Your task to perform on an android device: open sync settings in chrome Image 0: 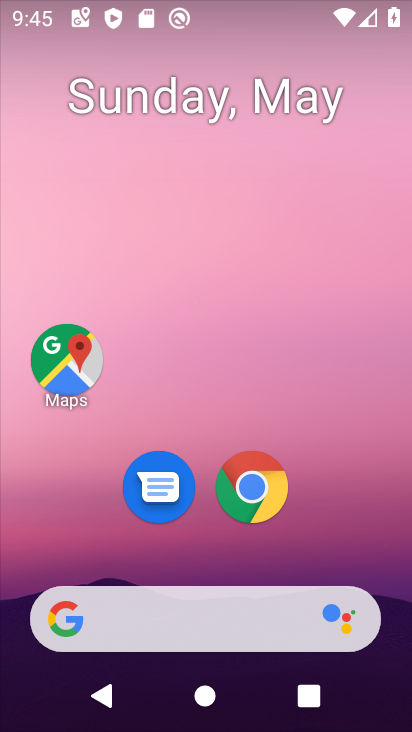
Step 0: drag from (387, 558) to (366, 196)
Your task to perform on an android device: open sync settings in chrome Image 1: 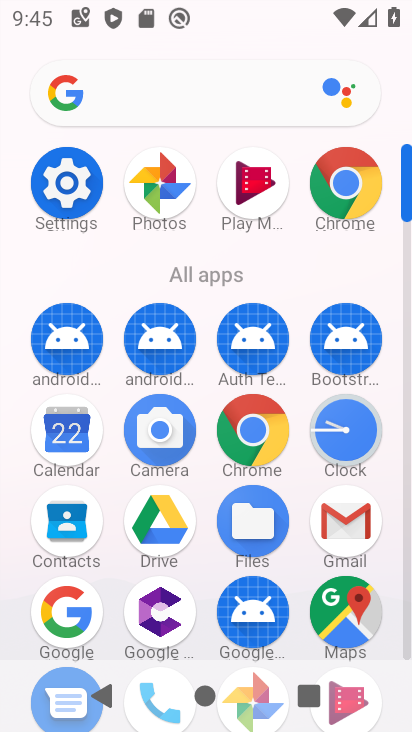
Step 1: click (271, 437)
Your task to perform on an android device: open sync settings in chrome Image 2: 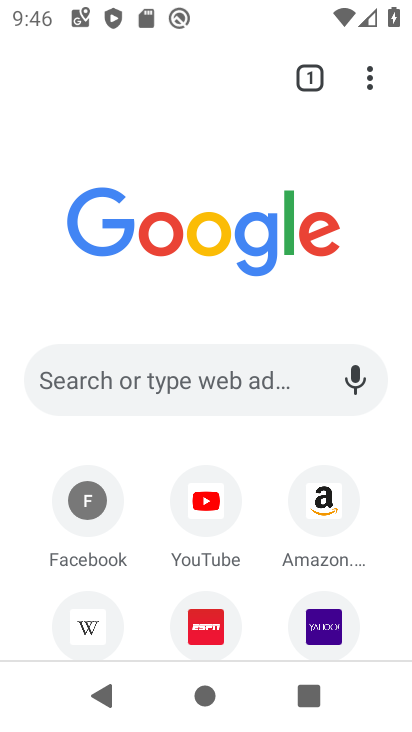
Step 2: click (367, 83)
Your task to perform on an android device: open sync settings in chrome Image 3: 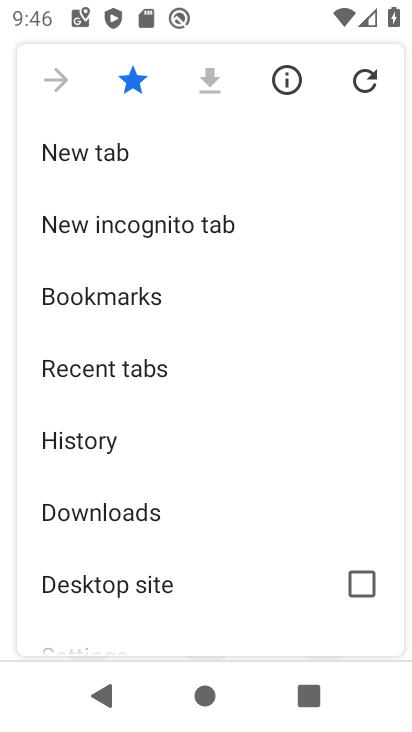
Step 3: drag from (302, 437) to (315, 297)
Your task to perform on an android device: open sync settings in chrome Image 4: 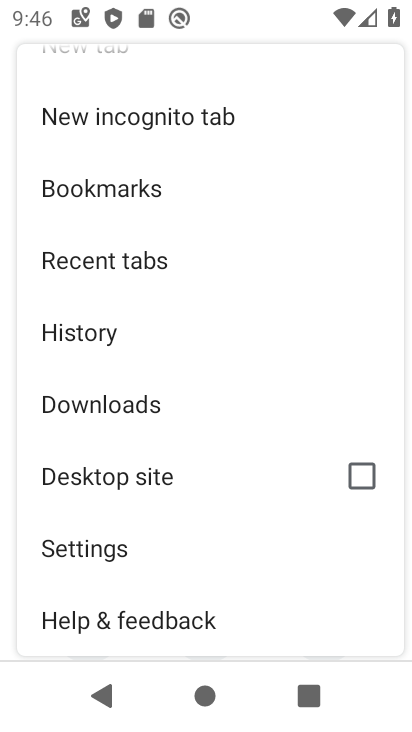
Step 4: drag from (255, 460) to (269, 316)
Your task to perform on an android device: open sync settings in chrome Image 5: 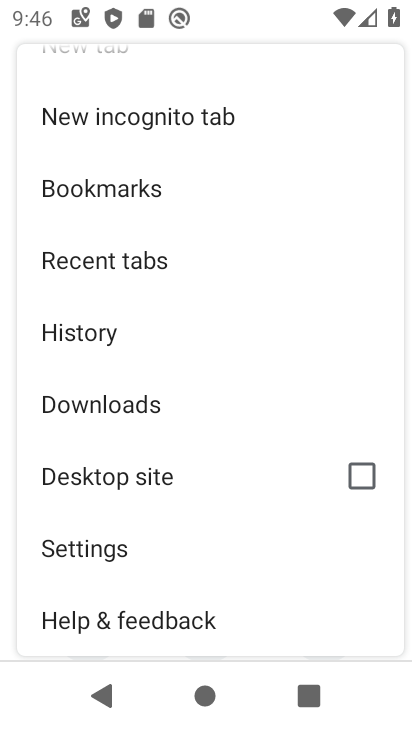
Step 5: click (134, 550)
Your task to perform on an android device: open sync settings in chrome Image 6: 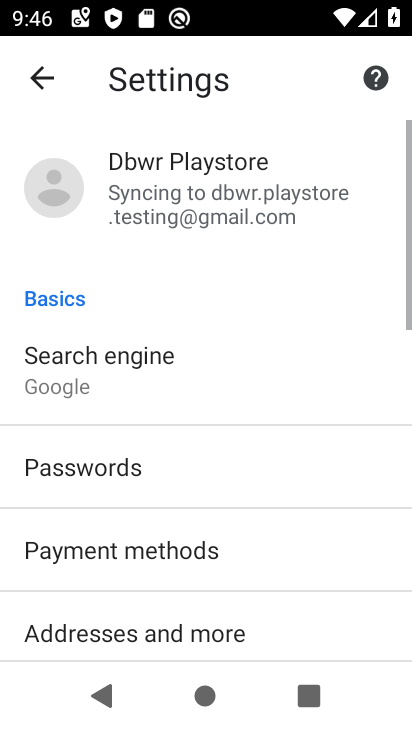
Step 6: drag from (291, 557) to (311, 419)
Your task to perform on an android device: open sync settings in chrome Image 7: 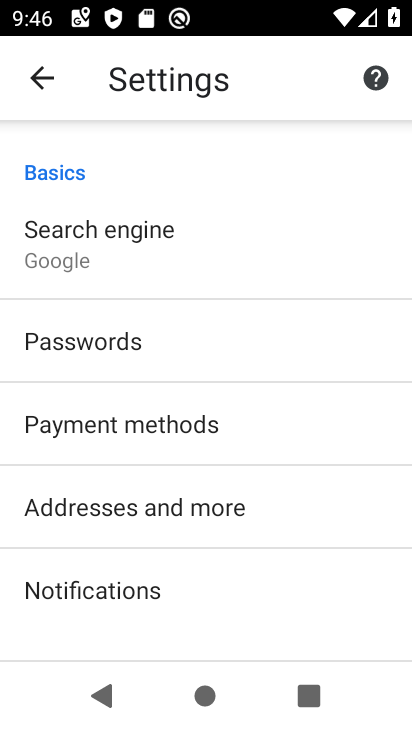
Step 7: drag from (306, 572) to (320, 388)
Your task to perform on an android device: open sync settings in chrome Image 8: 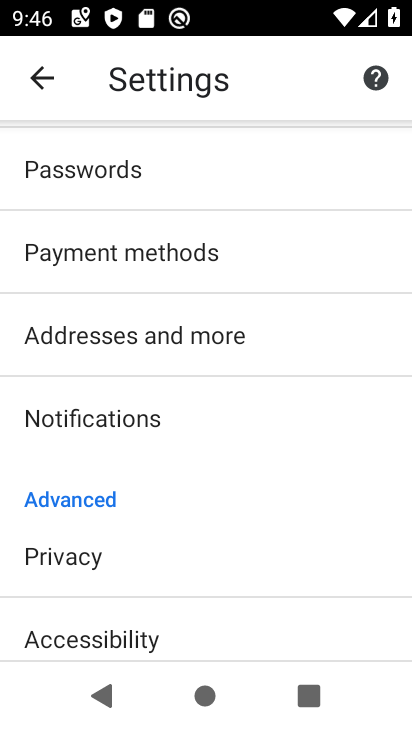
Step 8: drag from (303, 550) to (308, 380)
Your task to perform on an android device: open sync settings in chrome Image 9: 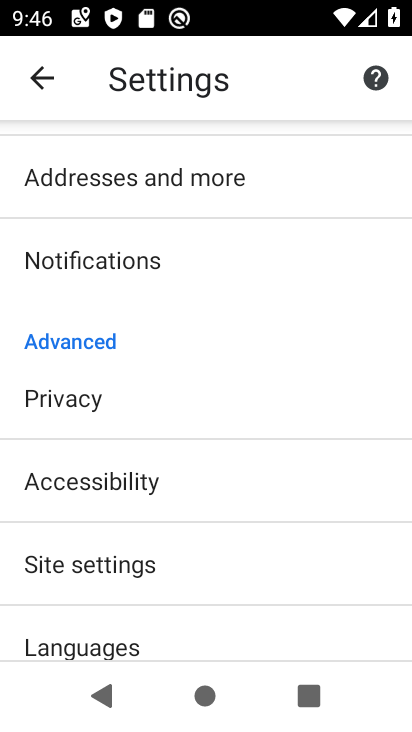
Step 9: drag from (295, 589) to (307, 418)
Your task to perform on an android device: open sync settings in chrome Image 10: 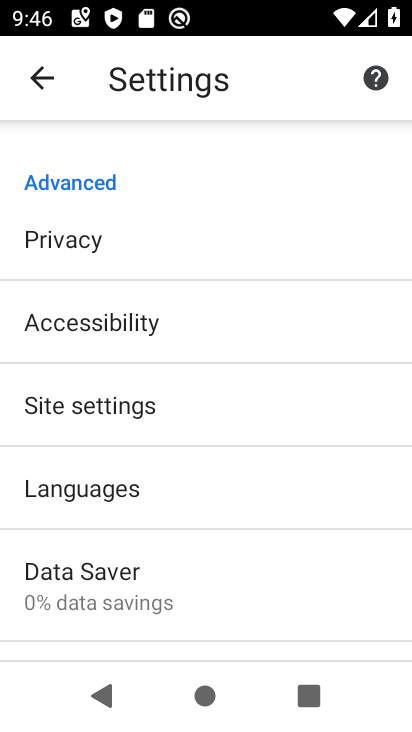
Step 10: click (228, 423)
Your task to perform on an android device: open sync settings in chrome Image 11: 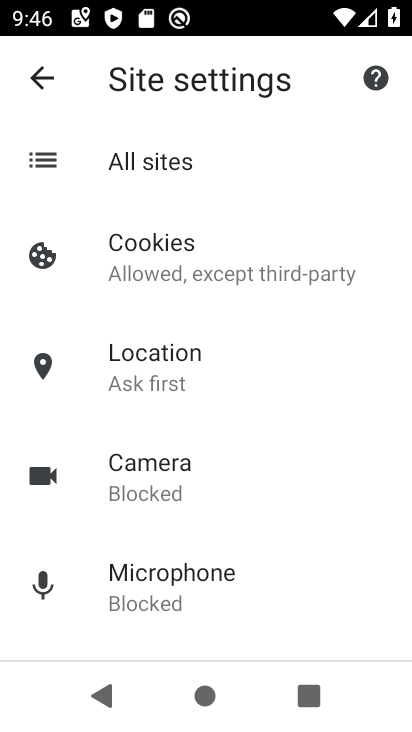
Step 11: drag from (306, 547) to (309, 359)
Your task to perform on an android device: open sync settings in chrome Image 12: 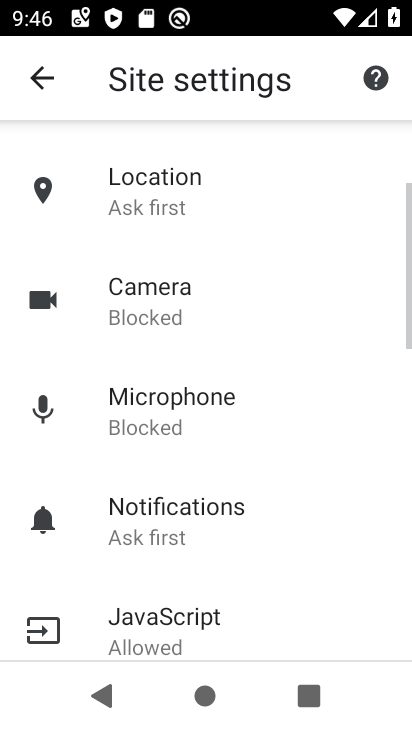
Step 12: drag from (348, 572) to (347, 394)
Your task to perform on an android device: open sync settings in chrome Image 13: 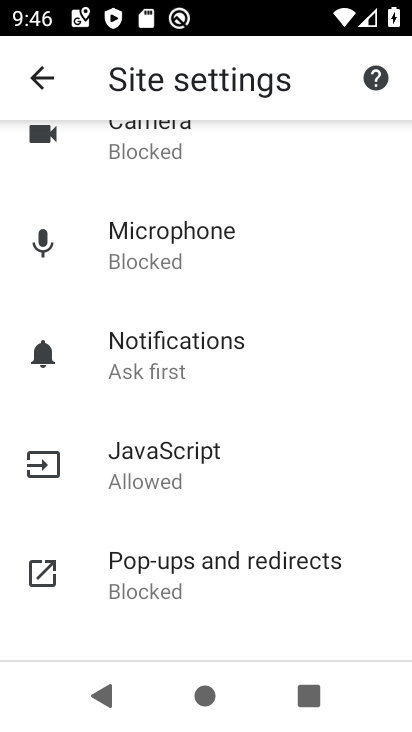
Step 13: drag from (370, 603) to (370, 430)
Your task to perform on an android device: open sync settings in chrome Image 14: 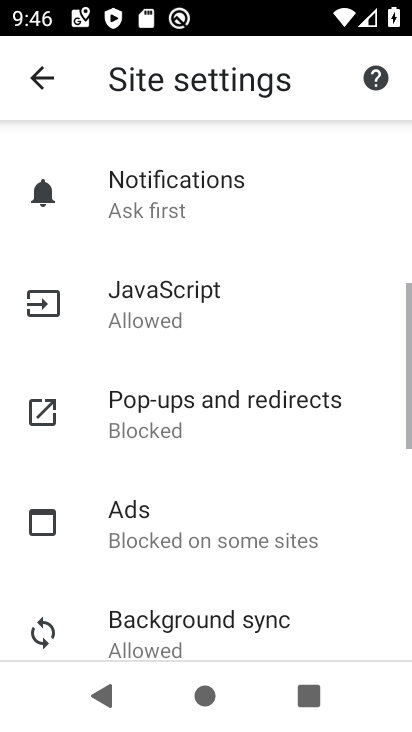
Step 14: drag from (351, 595) to (358, 434)
Your task to perform on an android device: open sync settings in chrome Image 15: 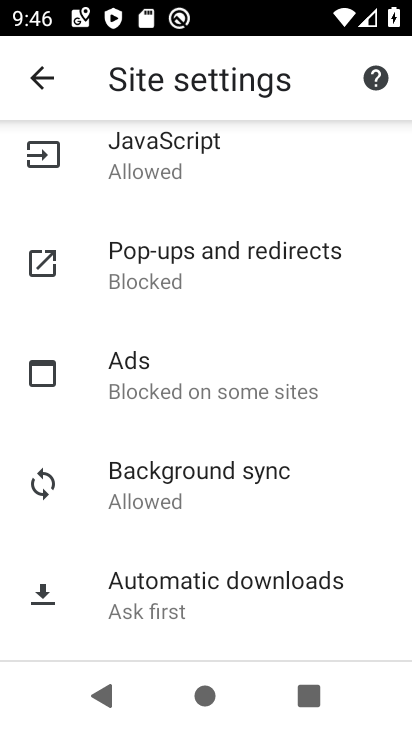
Step 15: drag from (377, 606) to (376, 427)
Your task to perform on an android device: open sync settings in chrome Image 16: 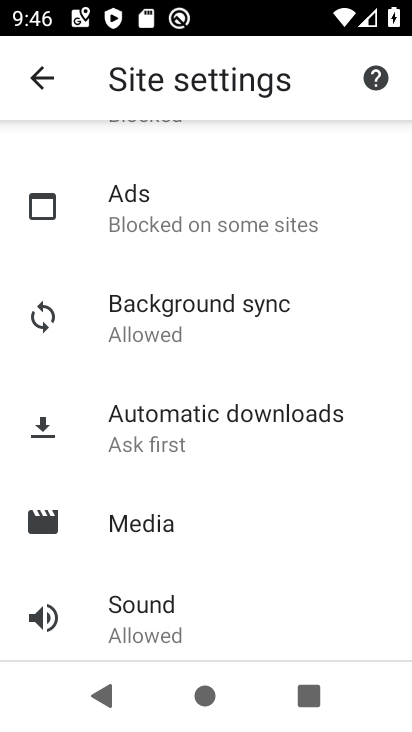
Step 16: drag from (361, 604) to (356, 458)
Your task to perform on an android device: open sync settings in chrome Image 17: 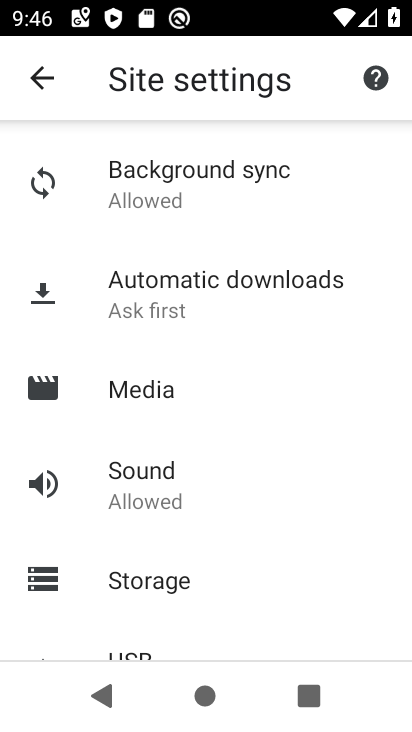
Step 17: drag from (363, 593) to (353, 454)
Your task to perform on an android device: open sync settings in chrome Image 18: 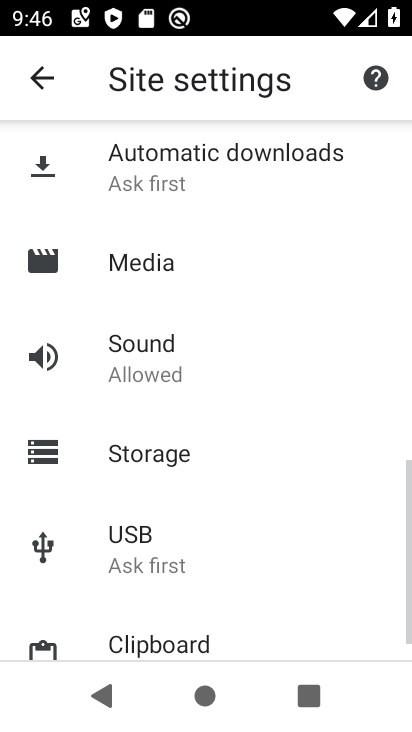
Step 18: drag from (358, 610) to (358, 447)
Your task to perform on an android device: open sync settings in chrome Image 19: 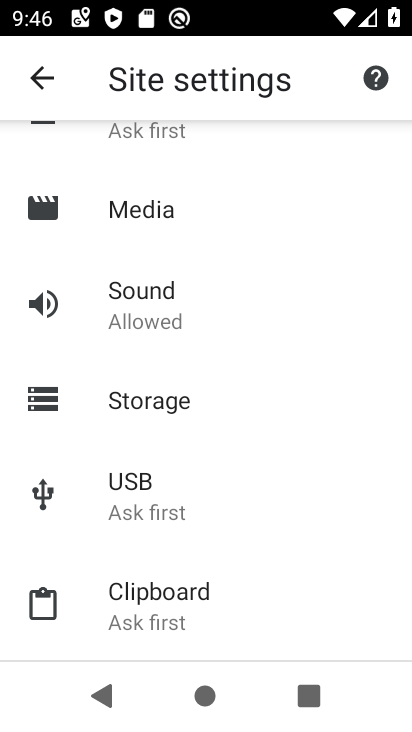
Step 19: drag from (357, 417) to (357, 544)
Your task to perform on an android device: open sync settings in chrome Image 20: 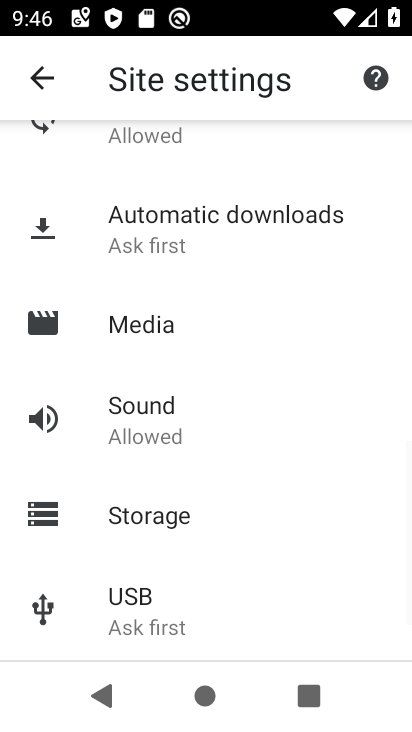
Step 20: drag from (355, 393) to (337, 514)
Your task to perform on an android device: open sync settings in chrome Image 21: 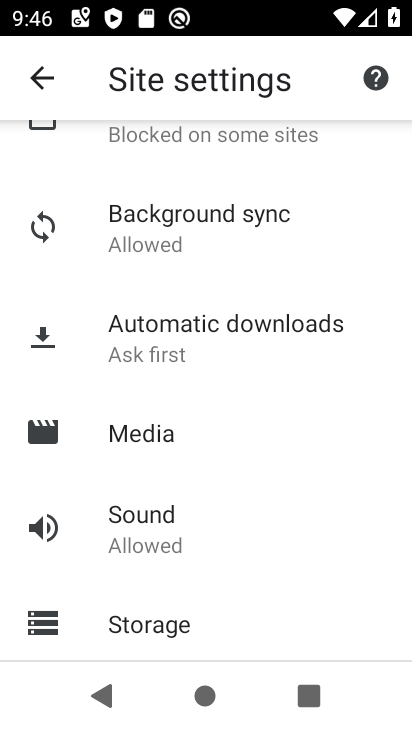
Step 21: drag from (316, 417) to (306, 499)
Your task to perform on an android device: open sync settings in chrome Image 22: 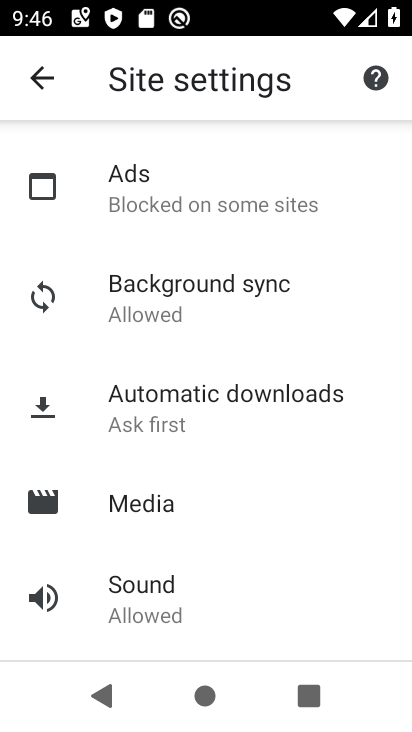
Step 22: drag from (348, 403) to (328, 554)
Your task to perform on an android device: open sync settings in chrome Image 23: 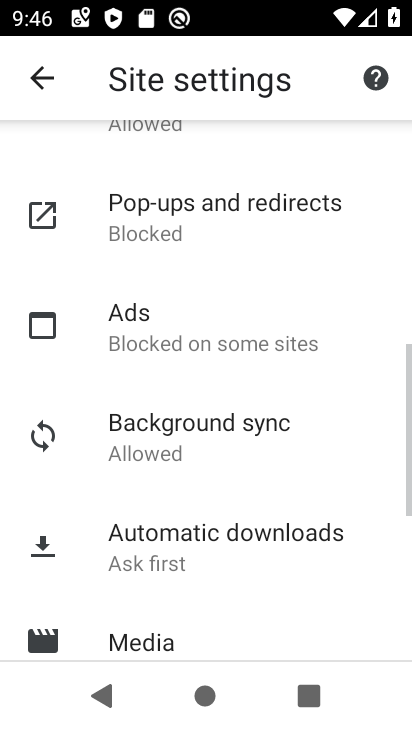
Step 23: click (269, 435)
Your task to perform on an android device: open sync settings in chrome Image 24: 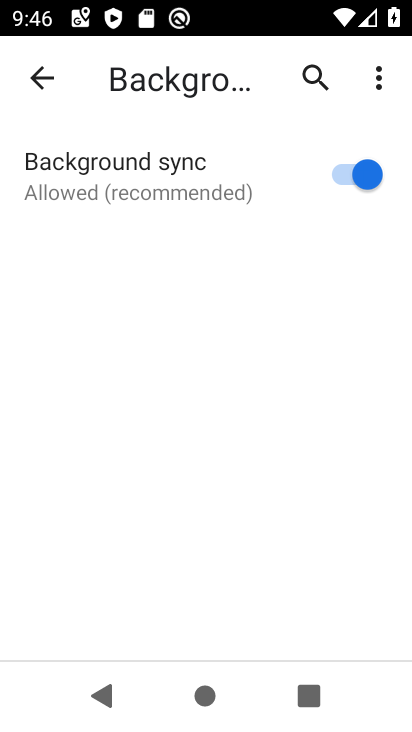
Step 24: task complete